Your task to perform on an android device: stop showing notifications on the lock screen Image 0: 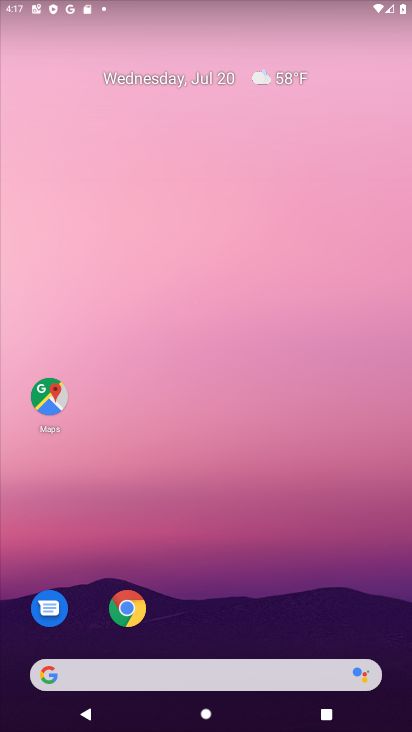
Step 0: drag from (218, 630) to (315, 6)
Your task to perform on an android device: stop showing notifications on the lock screen Image 1: 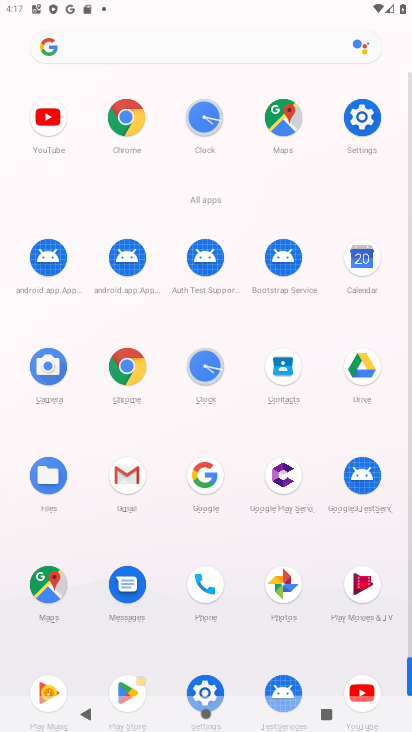
Step 1: click (366, 122)
Your task to perform on an android device: stop showing notifications on the lock screen Image 2: 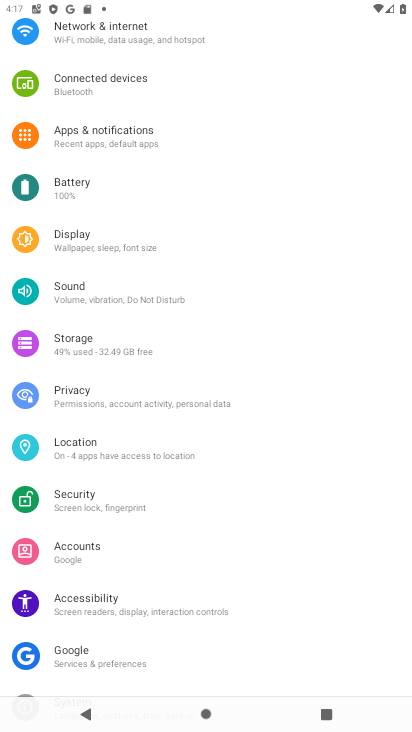
Step 2: click (121, 138)
Your task to perform on an android device: stop showing notifications on the lock screen Image 3: 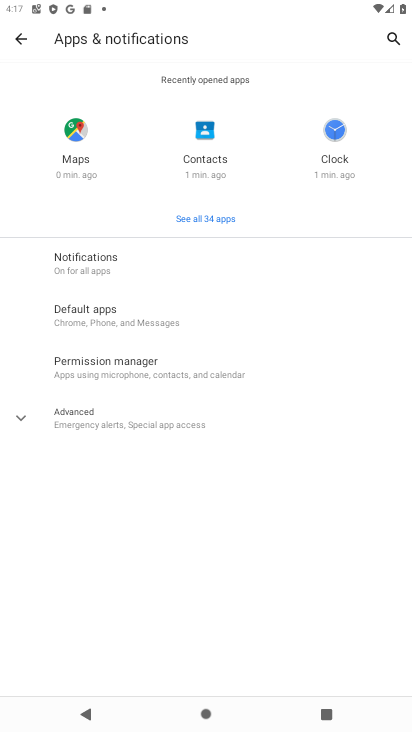
Step 3: click (106, 258)
Your task to perform on an android device: stop showing notifications on the lock screen Image 4: 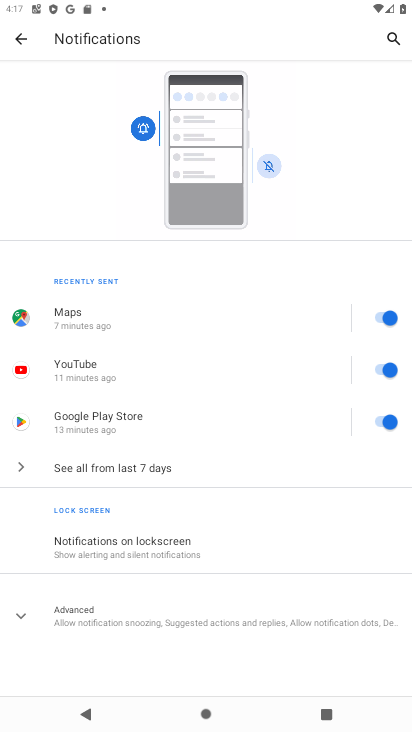
Step 4: click (112, 548)
Your task to perform on an android device: stop showing notifications on the lock screen Image 5: 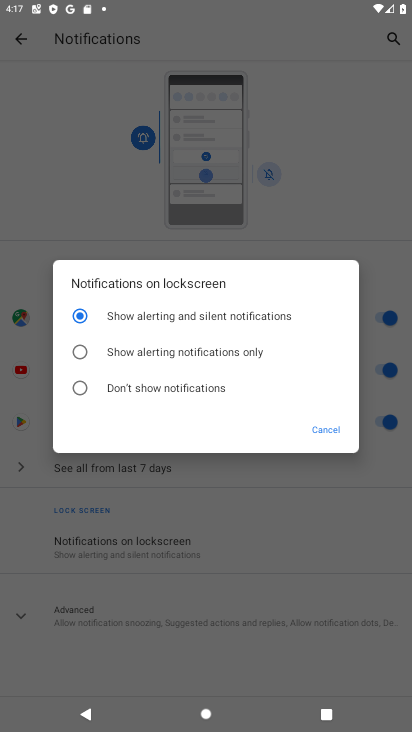
Step 5: click (81, 390)
Your task to perform on an android device: stop showing notifications on the lock screen Image 6: 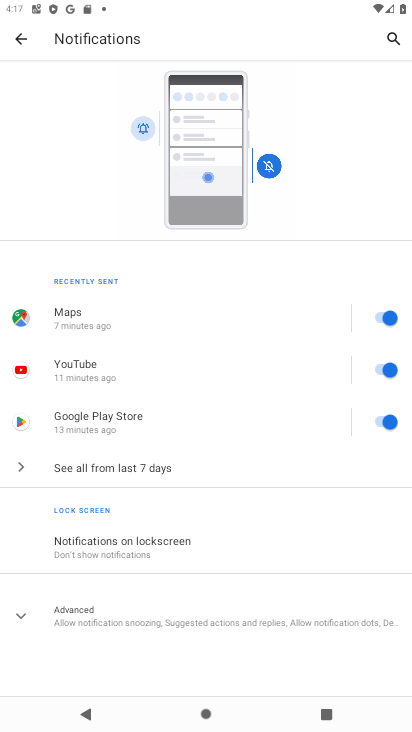
Step 6: task complete